Your task to perform on an android device: turn smart compose on in the gmail app Image 0: 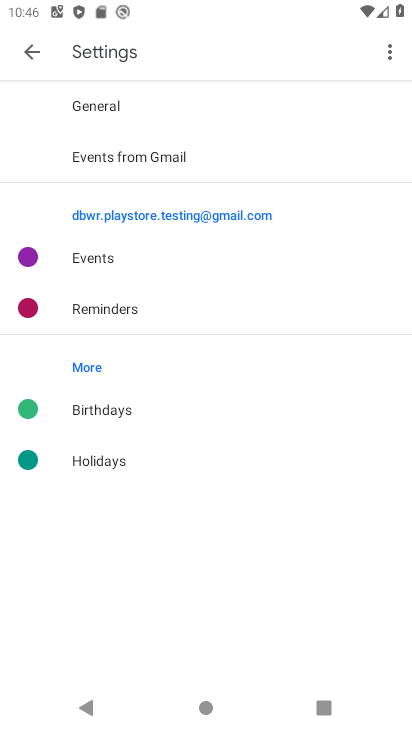
Step 0: press home button
Your task to perform on an android device: turn smart compose on in the gmail app Image 1: 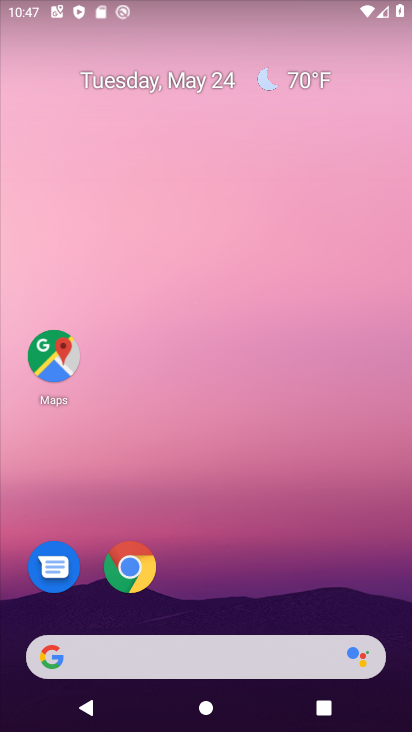
Step 1: drag from (394, 418) to (353, 257)
Your task to perform on an android device: turn smart compose on in the gmail app Image 2: 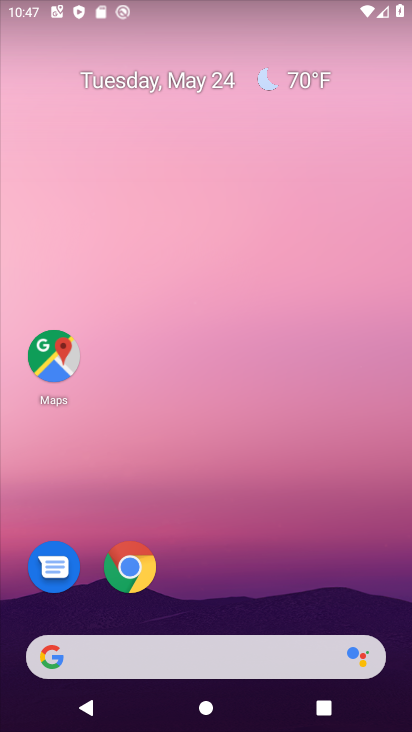
Step 2: drag from (404, 700) to (349, 366)
Your task to perform on an android device: turn smart compose on in the gmail app Image 3: 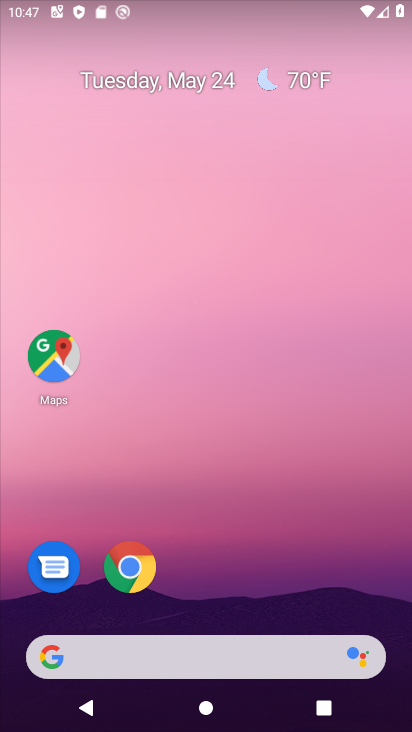
Step 3: drag from (396, 705) to (371, 323)
Your task to perform on an android device: turn smart compose on in the gmail app Image 4: 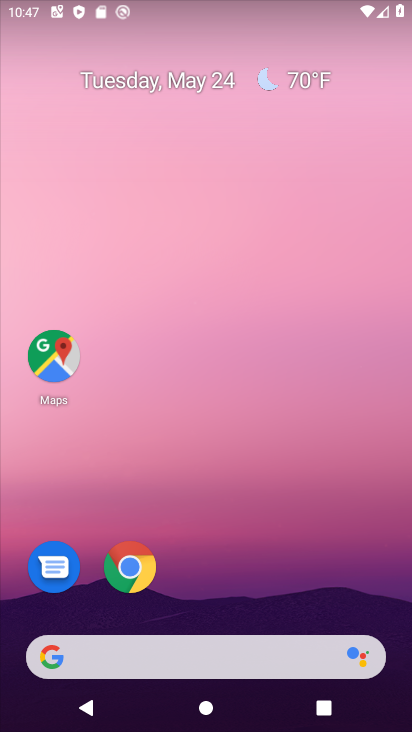
Step 4: drag from (396, 716) to (386, 229)
Your task to perform on an android device: turn smart compose on in the gmail app Image 5: 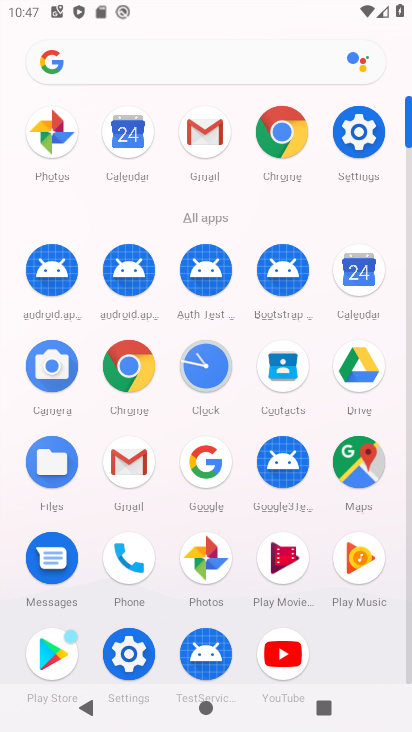
Step 5: click (131, 467)
Your task to perform on an android device: turn smart compose on in the gmail app Image 6: 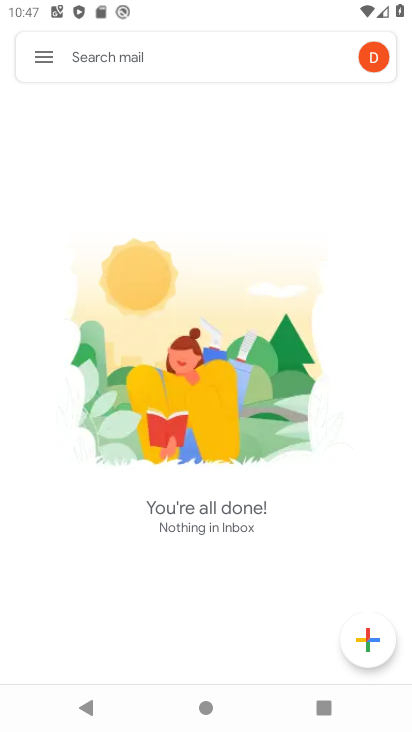
Step 6: click (34, 58)
Your task to perform on an android device: turn smart compose on in the gmail app Image 7: 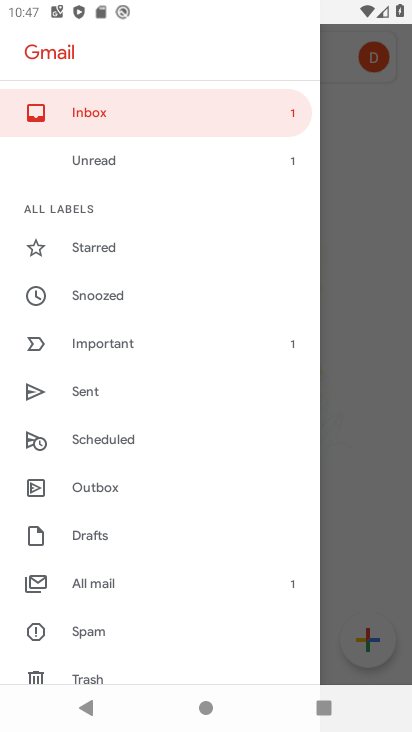
Step 7: drag from (151, 664) to (167, 346)
Your task to perform on an android device: turn smart compose on in the gmail app Image 8: 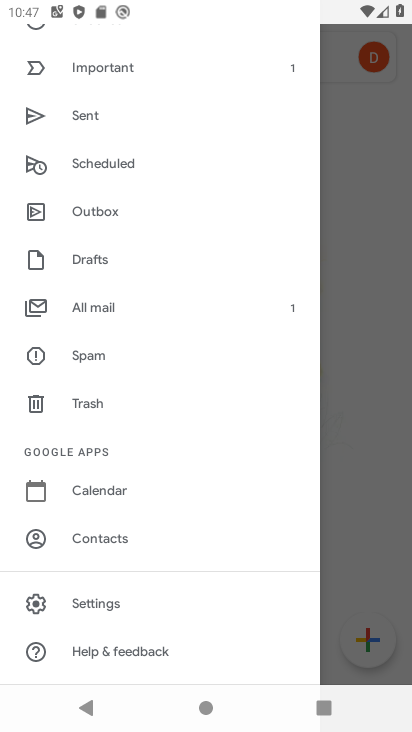
Step 8: click (96, 602)
Your task to perform on an android device: turn smart compose on in the gmail app Image 9: 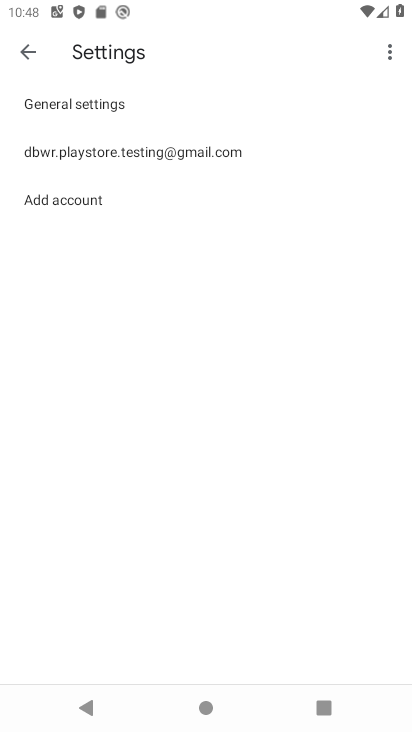
Step 9: click (74, 145)
Your task to perform on an android device: turn smart compose on in the gmail app Image 10: 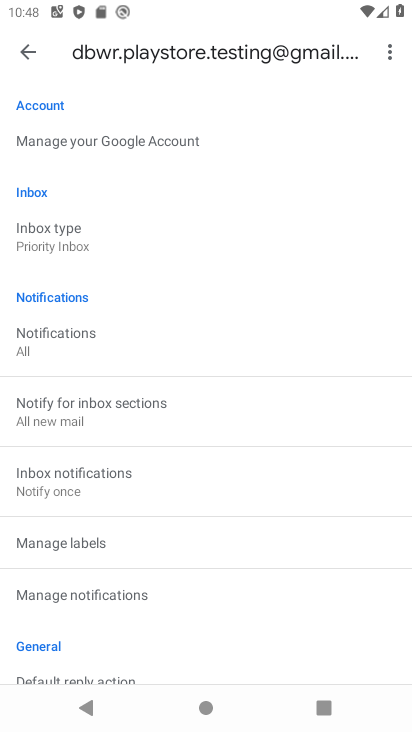
Step 10: task complete